Your task to perform on an android device: Open the phone app and click the voicemail tab. Image 0: 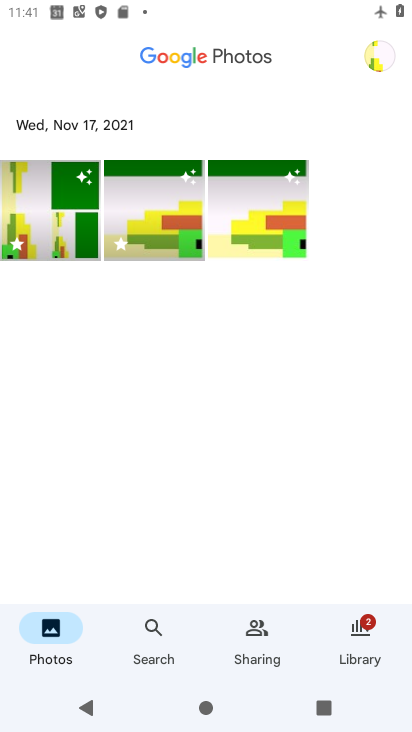
Step 0: press home button
Your task to perform on an android device: Open the phone app and click the voicemail tab. Image 1: 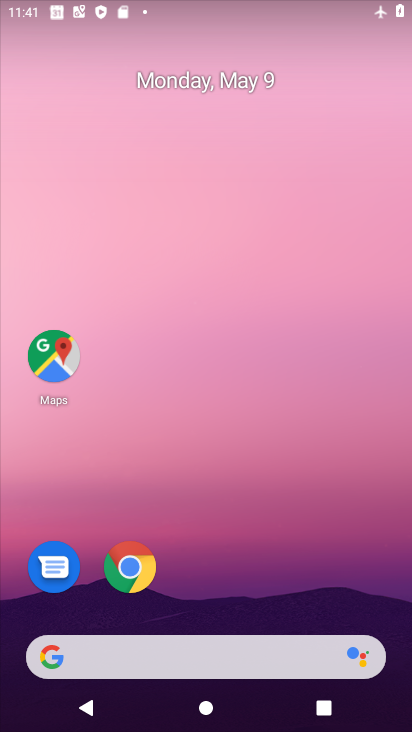
Step 1: drag from (392, 597) to (267, 59)
Your task to perform on an android device: Open the phone app and click the voicemail tab. Image 2: 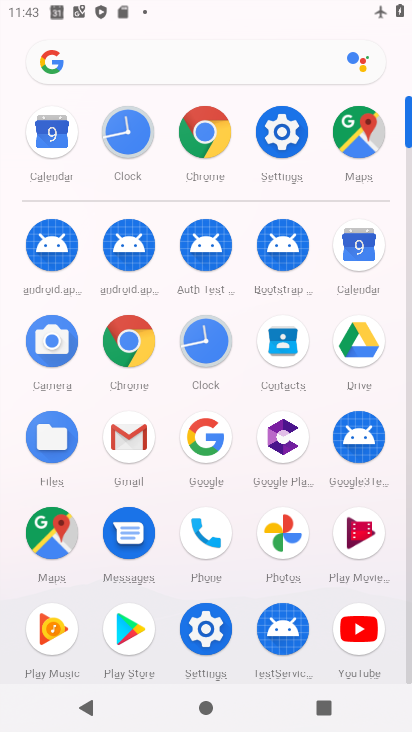
Step 2: click (195, 520)
Your task to perform on an android device: Open the phone app and click the voicemail tab. Image 3: 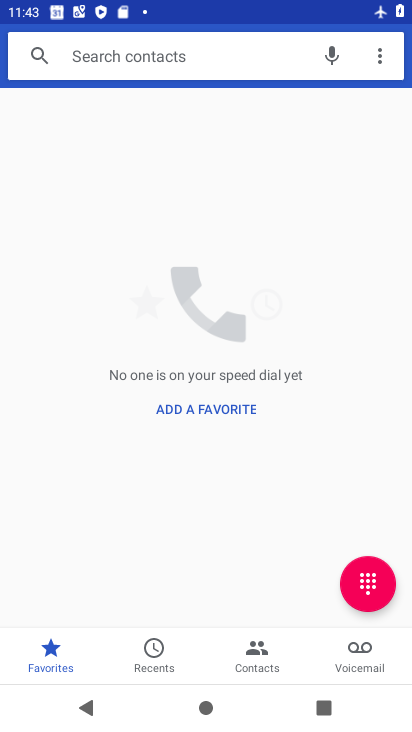
Step 3: click (359, 643)
Your task to perform on an android device: Open the phone app and click the voicemail tab. Image 4: 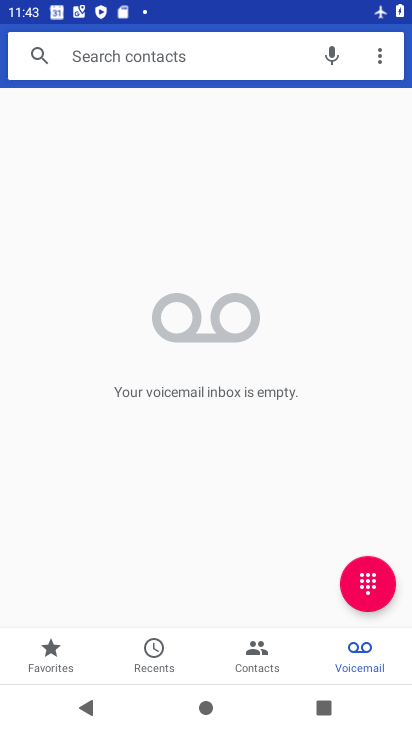
Step 4: task complete